Your task to perform on an android device: What's the weather going to be tomorrow? Image 0: 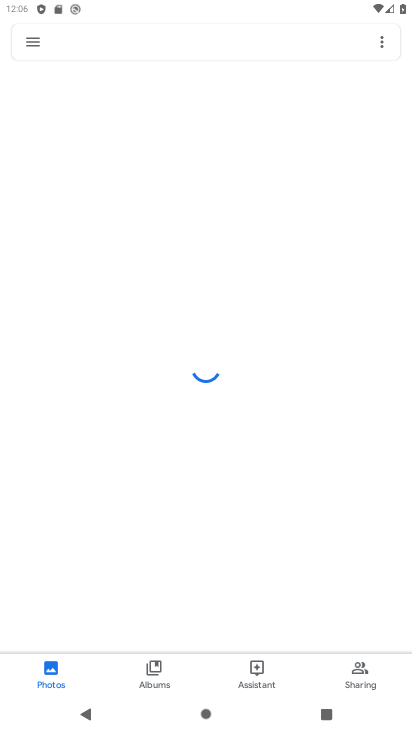
Step 0: press home button
Your task to perform on an android device: What's the weather going to be tomorrow? Image 1: 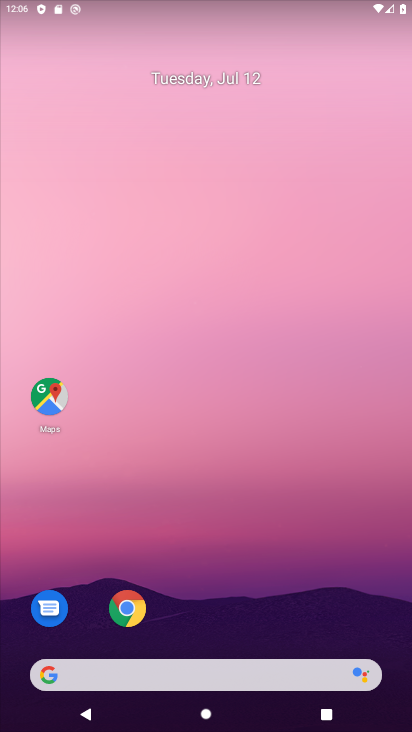
Step 1: drag from (203, 667) to (213, 328)
Your task to perform on an android device: What's the weather going to be tomorrow? Image 2: 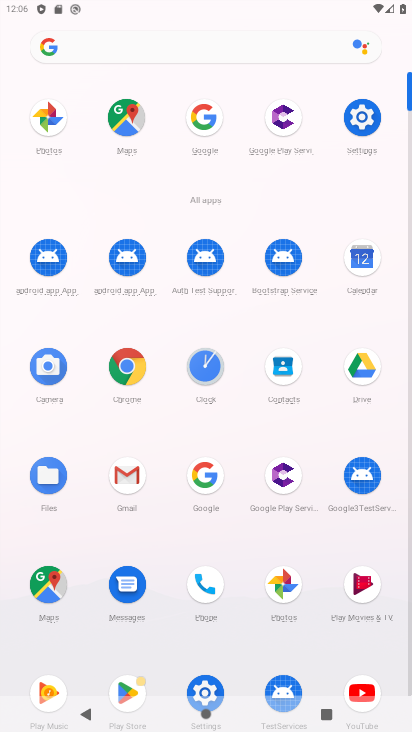
Step 2: click (194, 122)
Your task to perform on an android device: What's the weather going to be tomorrow? Image 3: 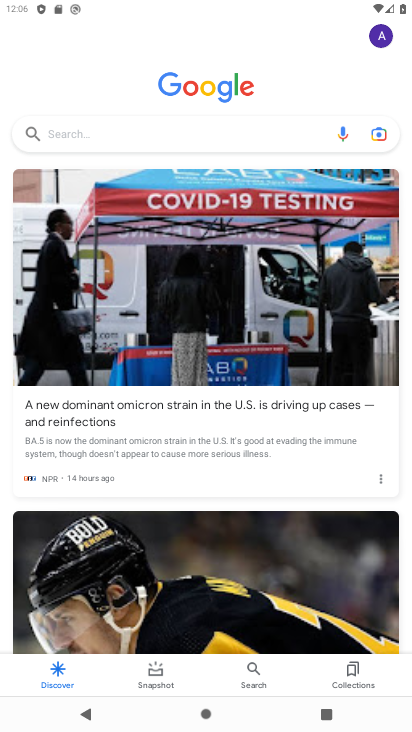
Step 3: click (91, 131)
Your task to perform on an android device: What's the weather going to be tomorrow? Image 4: 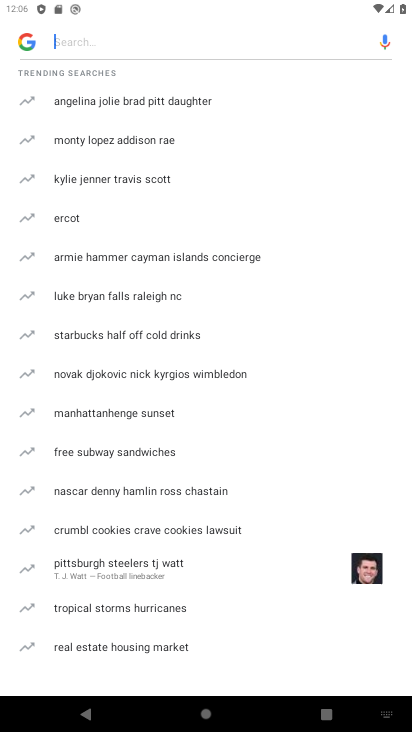
Step 4: click (72, 41)
Your task to perform on an android device: What's the weather going to be tomorrow? Image 5: 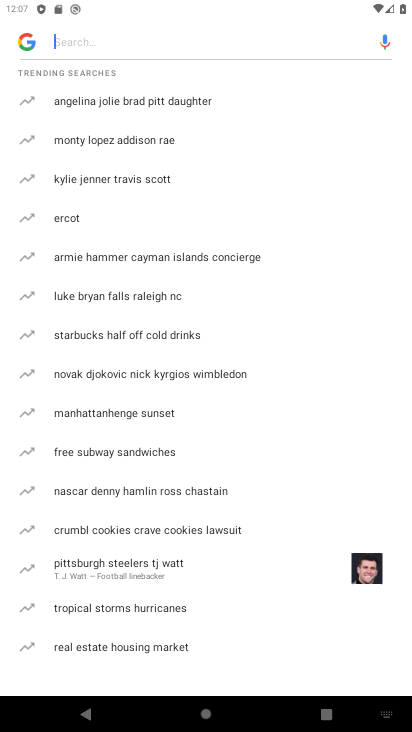
Step 5: type "whats the weather going to be tomorrow?"
Your task to perform on an android device: What's the weather going to be tomorrow? Image 6: 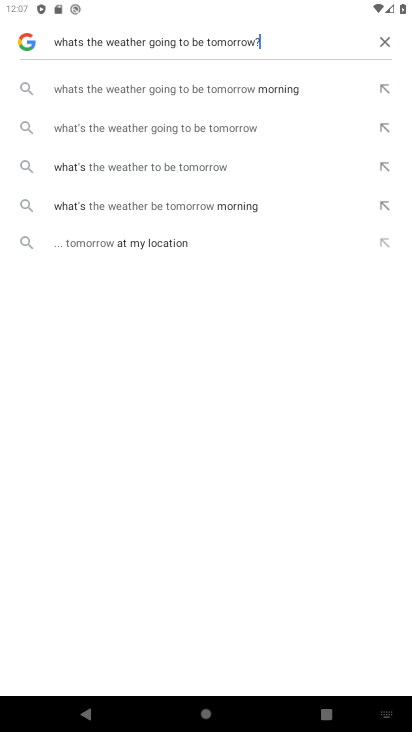
Step 6: click (140, 129)
Your task to perform on an android device: What's the weather going to be tomorrow? Image 7: 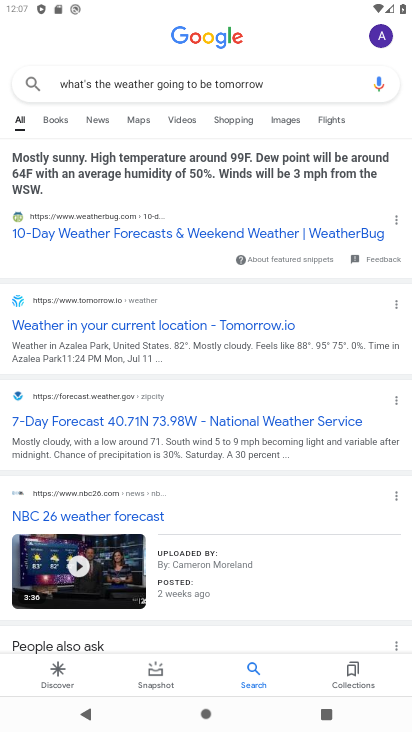
Step 7: click (114, 228)
Your task to perform on an android device: What's the weather going to be tomorrow? Image 8: 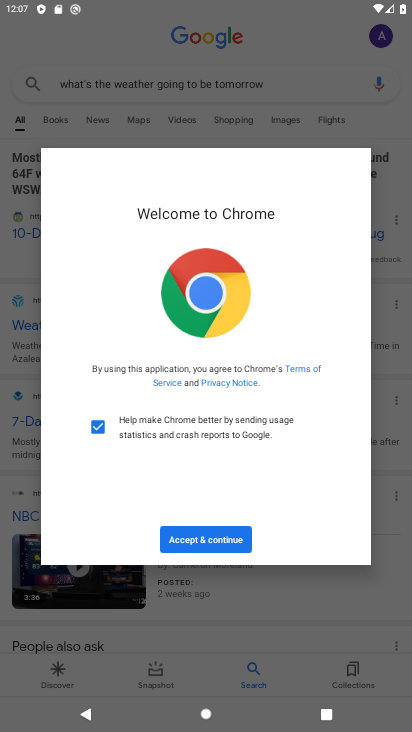
Step 8: click (224, 540)
Your task to perform on an android device: What's the weather going to be tomorrow? Image 9: 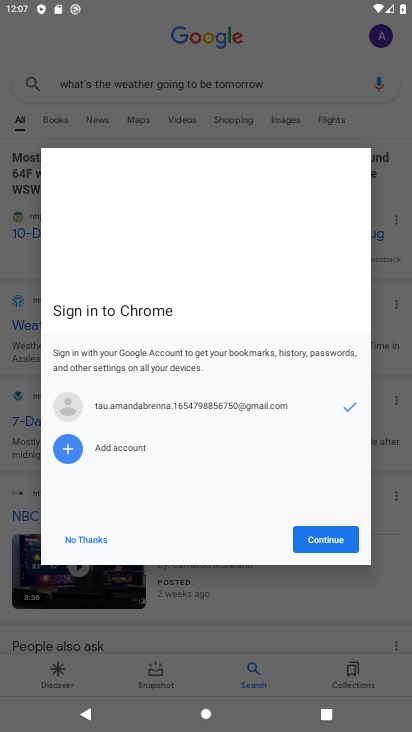
Step 9: click (324, 528)
Your task to perform on an android device: What's the weather going to be tomorrow? Image 10: 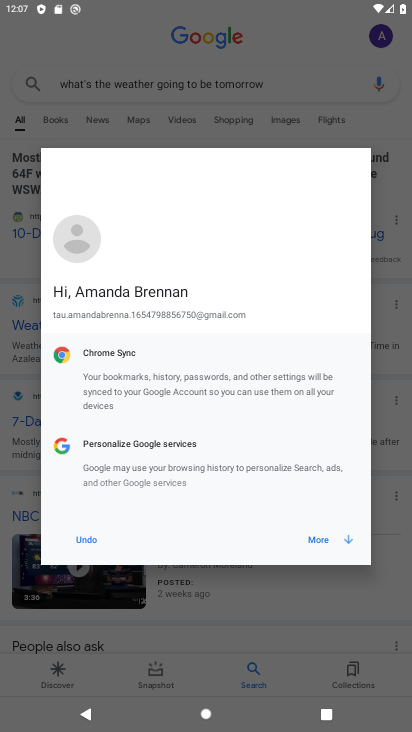
Step 10: click (312, 534)
Your task to perform on an android device: What's the weather going to be tomorrow? Image 11: 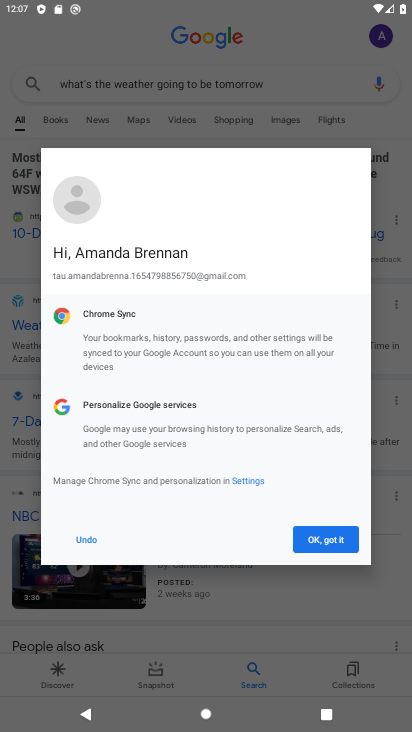
Step 11: click (314, 534)
Your task to perform on an android device: What's the weather going to be tomorrow? Image 12: 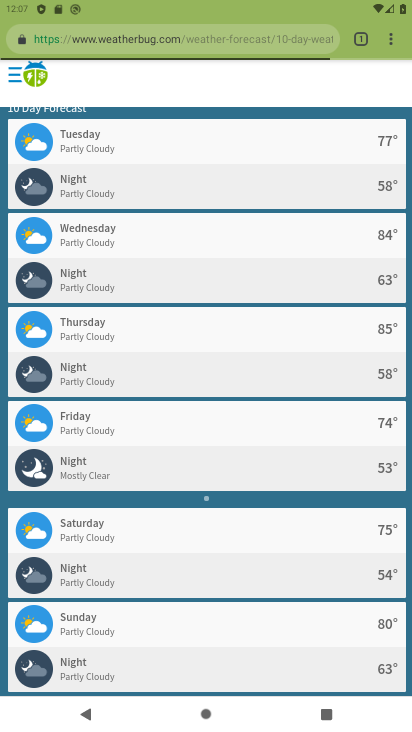
Step 12: task complete